Your task to perform on an android device: Search for sushi restaurants on Maps Image 0: 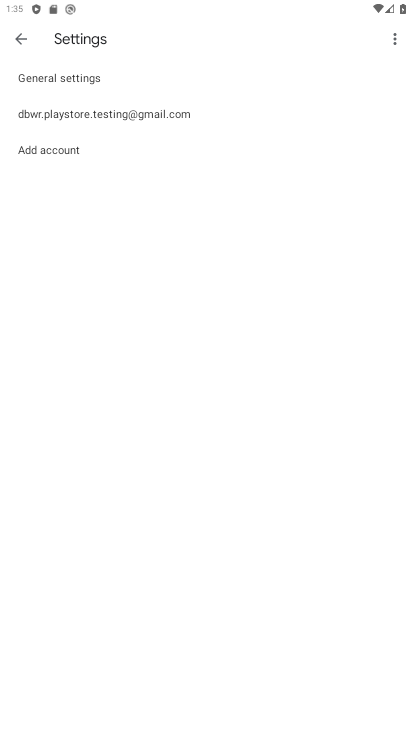
Step 0: press home button
Your task to perform on an android device: Search for sushi restaurants on Maps Image 1: 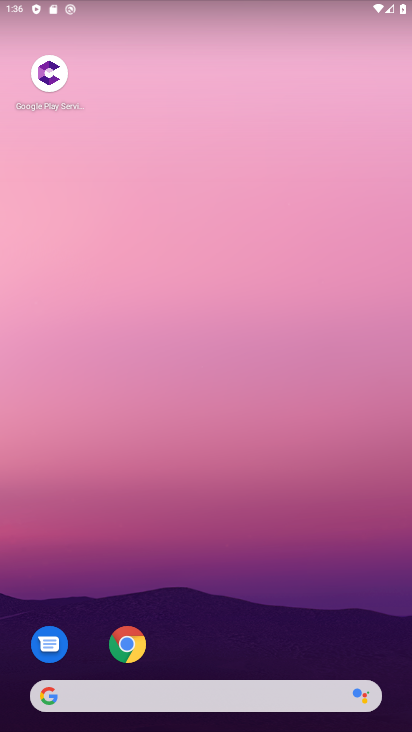
Step 1: drag from (158, 689) to (179, 45)
Your task to perform on an android device: Search for sushi restaurants on Maps Image 2: 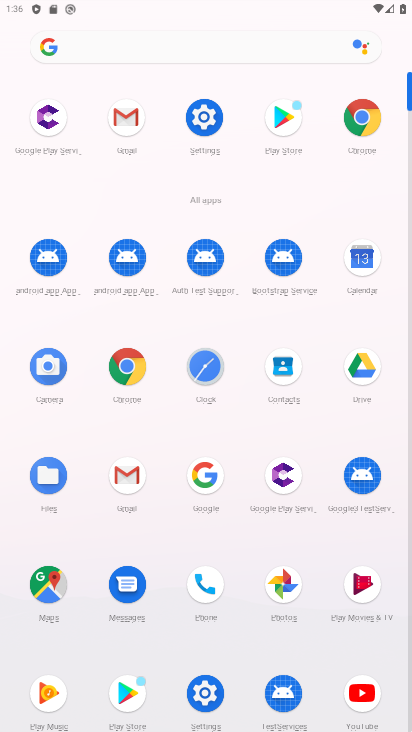
Step 2: click (58, 587)
Your task to perform on an android device: Search for sushi restaurants on Maps Image 3: 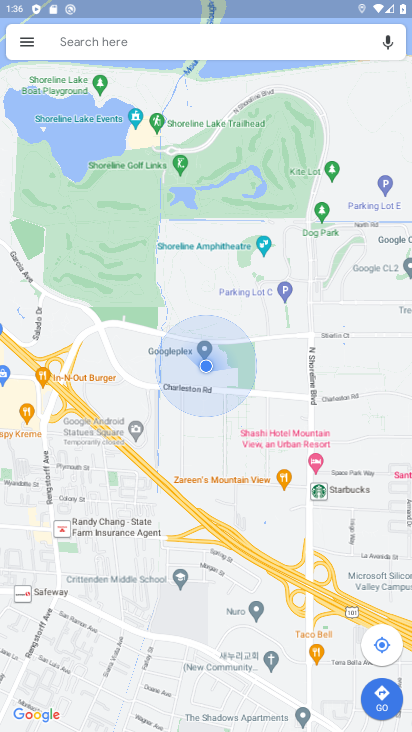
Step 3: click (144, 44)
Your task to perform on an android device: Search for sushi restaurants on Maps Image 4: 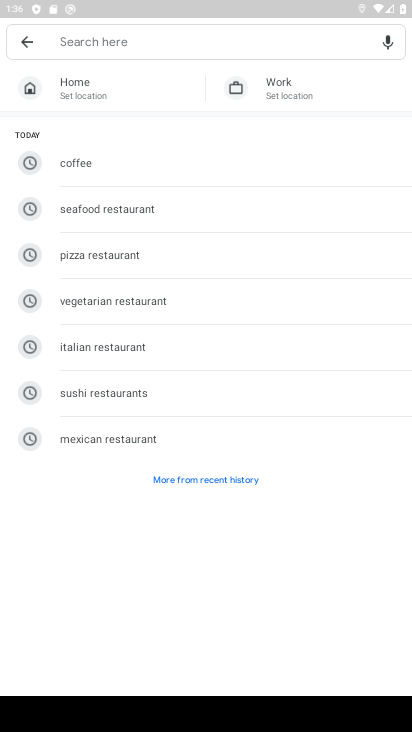
Step 4: click (109, 400)
Your task to perform on an android device: Search for sushi restaurants on Maps Image 5: 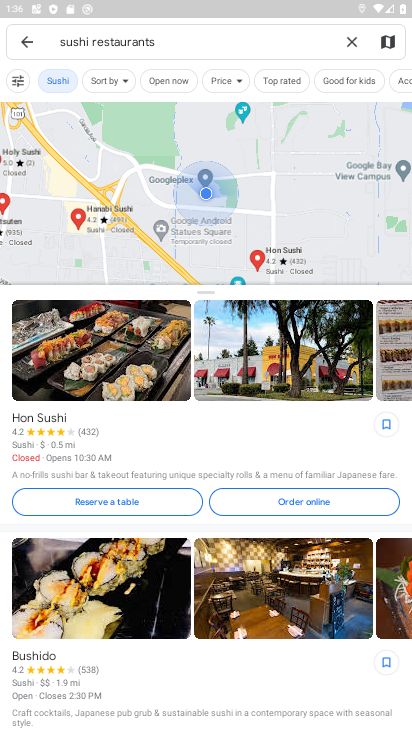
Step 5: task complete